Your task to perform on an android device: Turn on the flashlight Image 0: 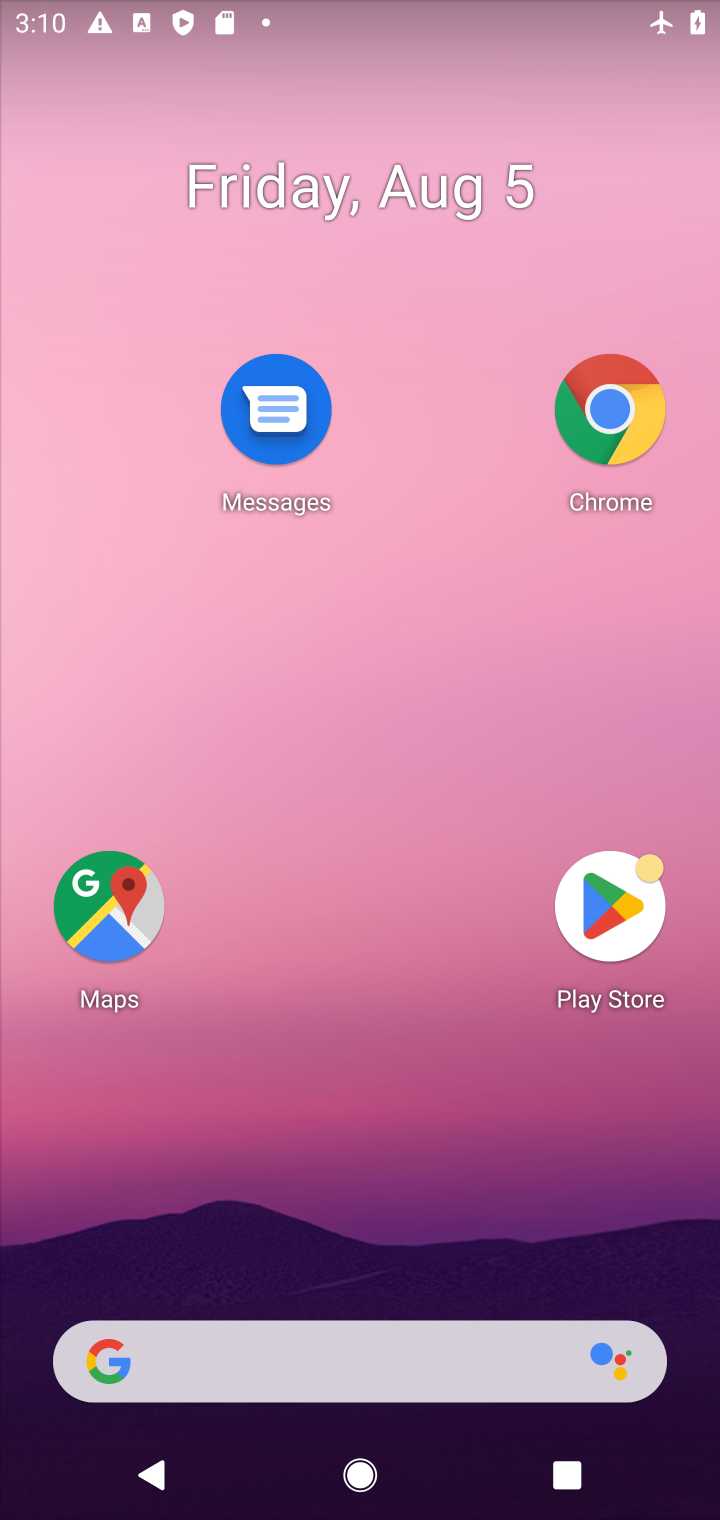
Step 0: drag from (334, 949) to (334, 354)
Your task to perform on an android device: Turn on the flashlight Image 1: 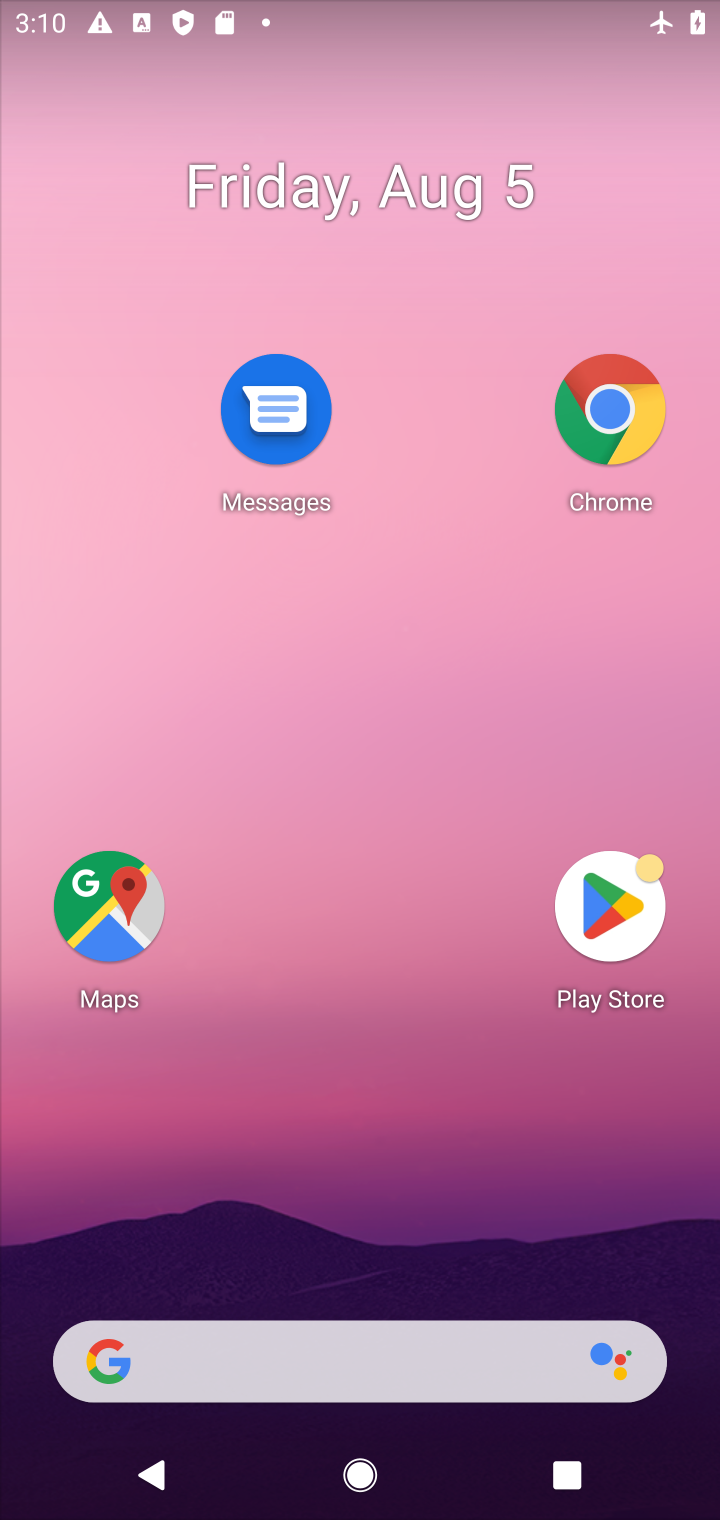
Step 1: drag from (382, 553) to (389, 166)
Your task to perform on an android device: Turn on the flashlight Image 2: 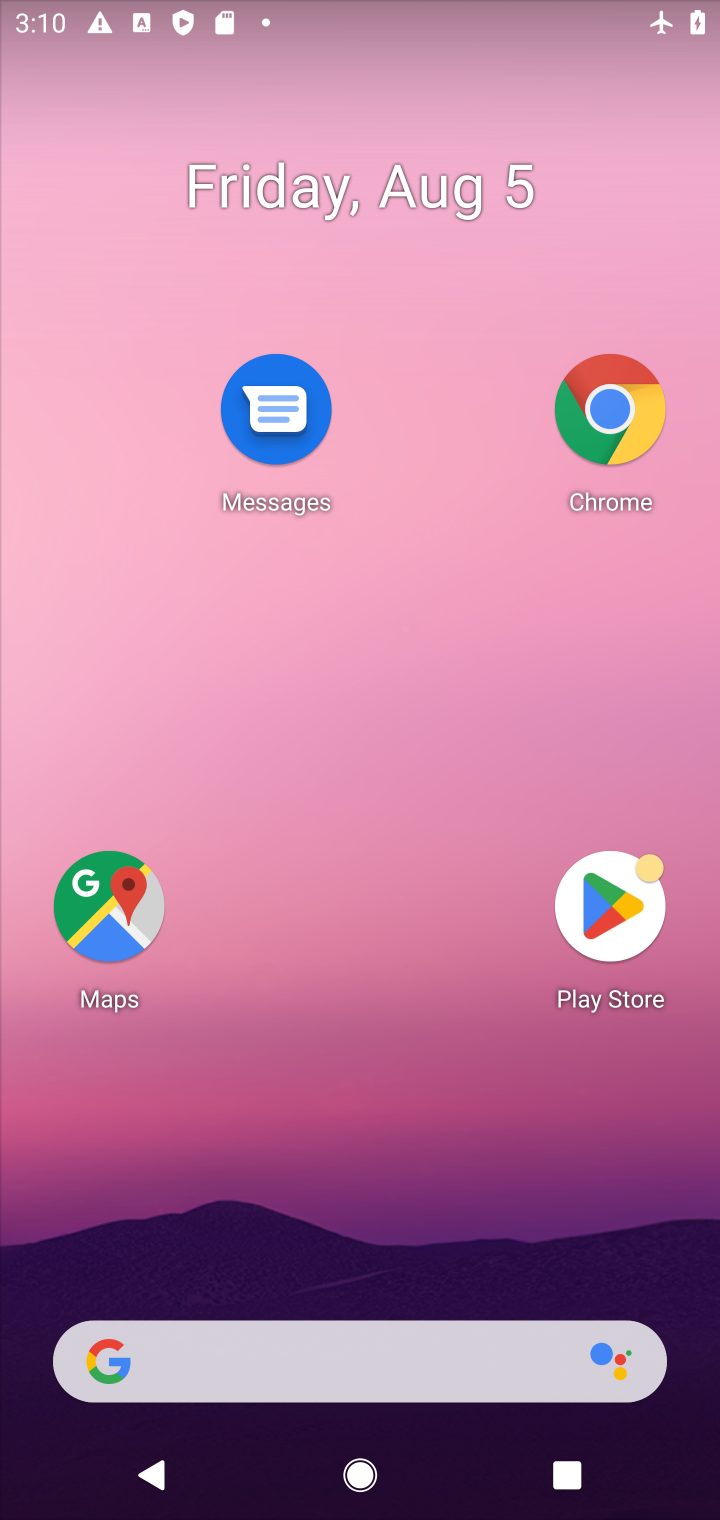
Step 2: drag from (418, 849) to (470, 270)
Your task to perform on an android device: Turn on the flashlight Image 3: 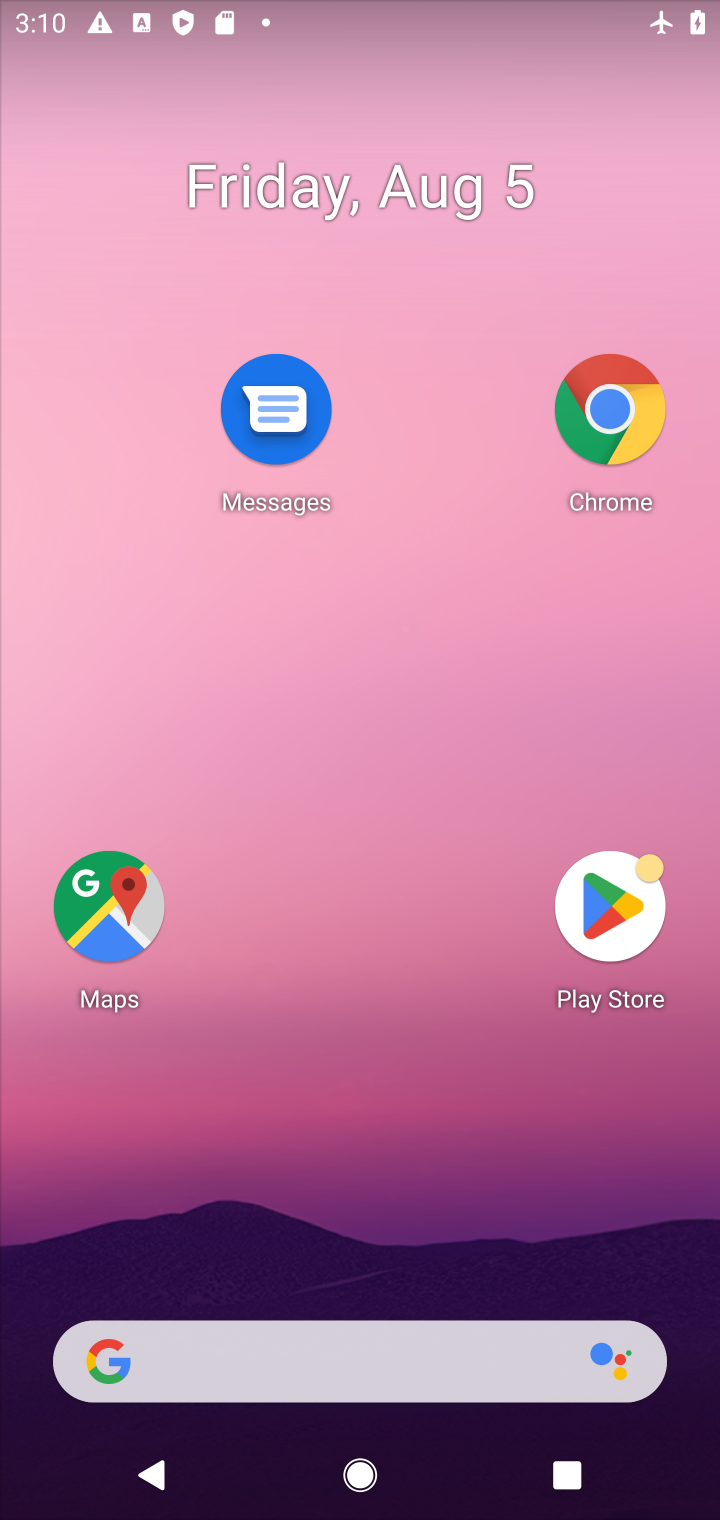
Step 3: drag from (446, 905) to (463, 136)
Your task to perform on an android device: Turn on the flashlight Image 4: 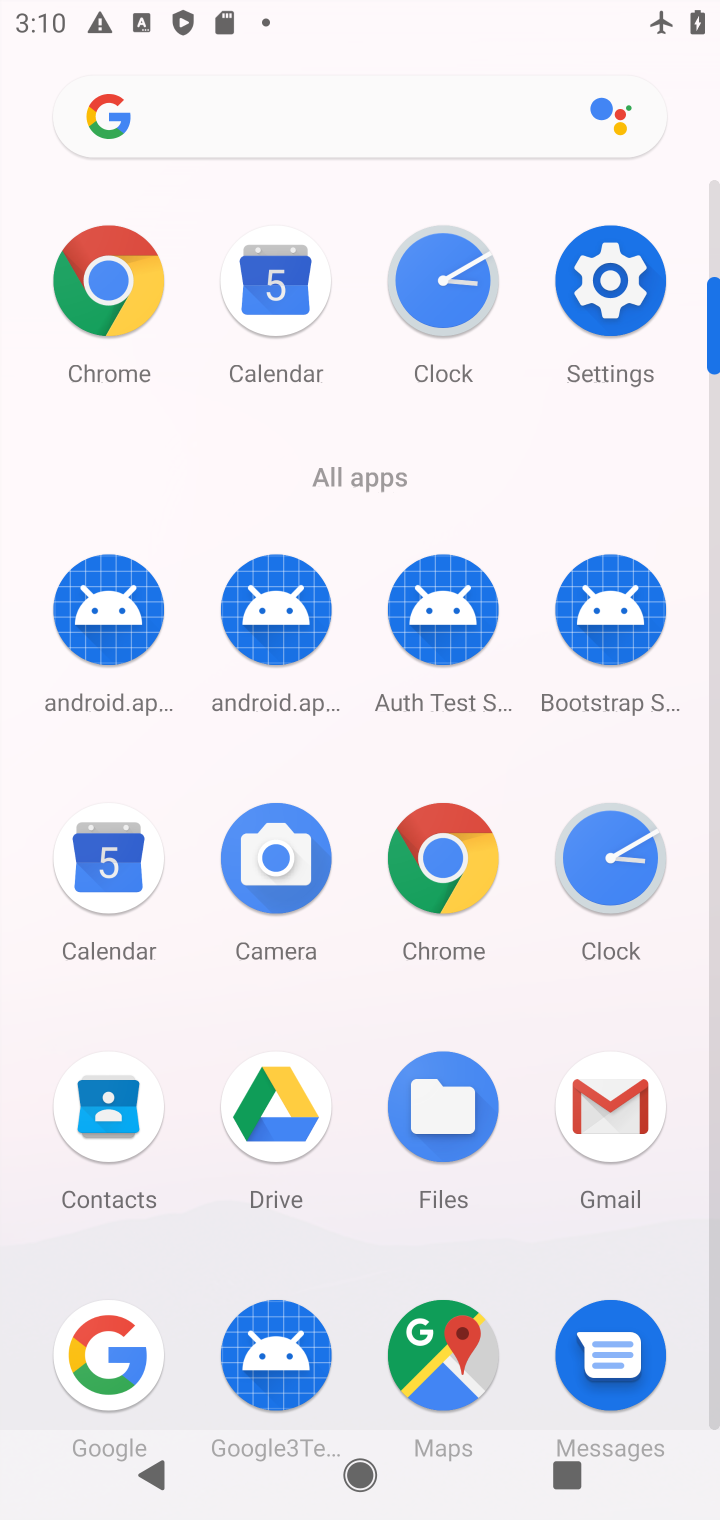
Step 4: click (617, 305)
Your task to perform on an android device: Turn on the flashlight Image 5: 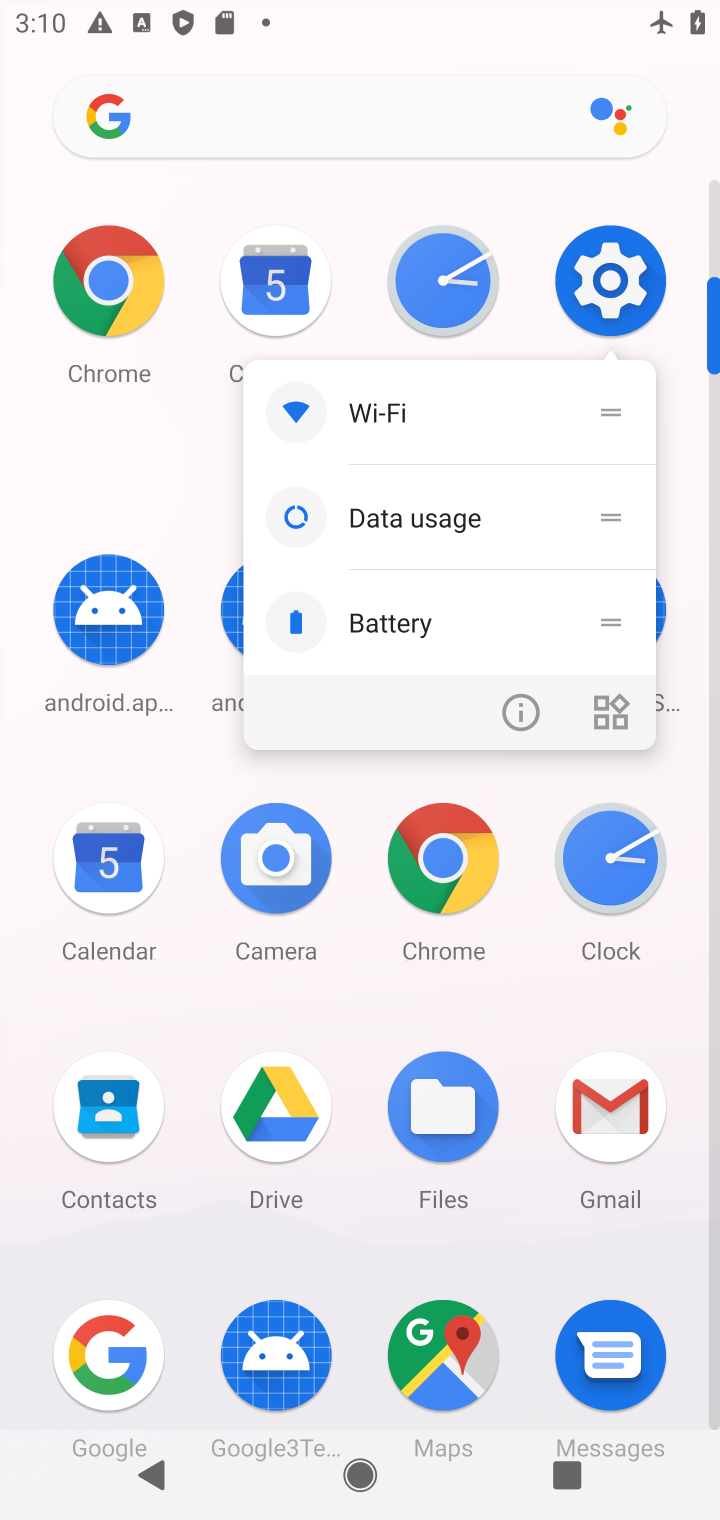
Step 5: task complete